Your task to perform on an android device: What's the weather going to be this weekend? Image 0: 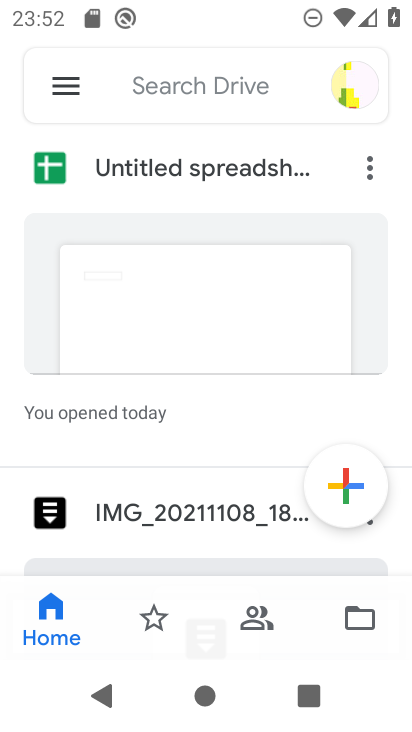
Step 0: press home button
Your task to perform on an android device: What's the weather going to be this weekend? Image 1: 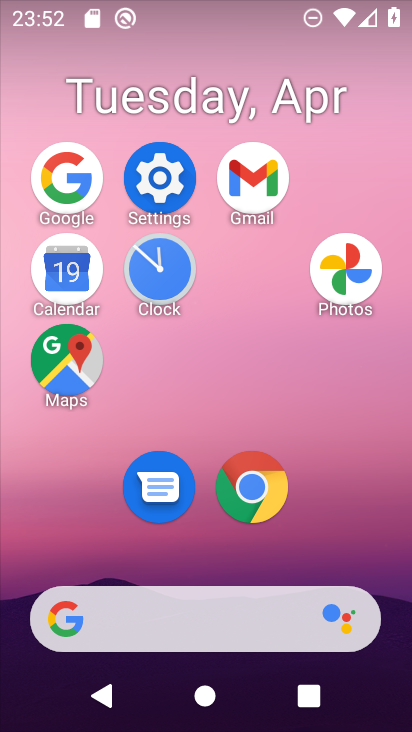
Step 1: click (72, 175)
Your task to perform on an android device: What's the weather going to be this weekend? Image 2: 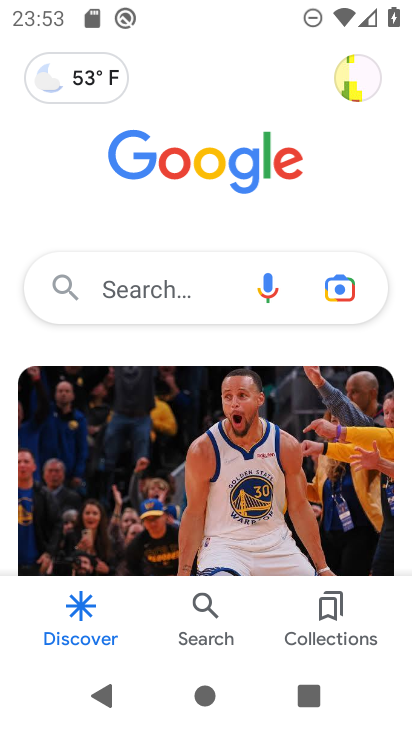
Step 2: click (88, 78)
Your task to perform on an android device: What's the weather going to be this weekend? Image 3: 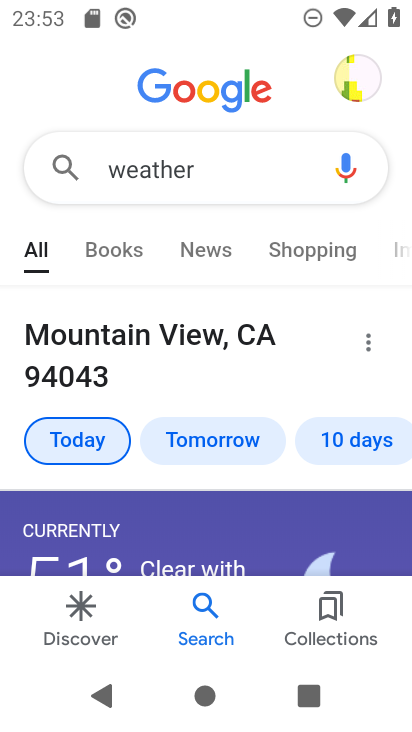
Step 3: click (335, 438)
Your task to perform on an android device: What's the weather going to be this weekend? Image 4: 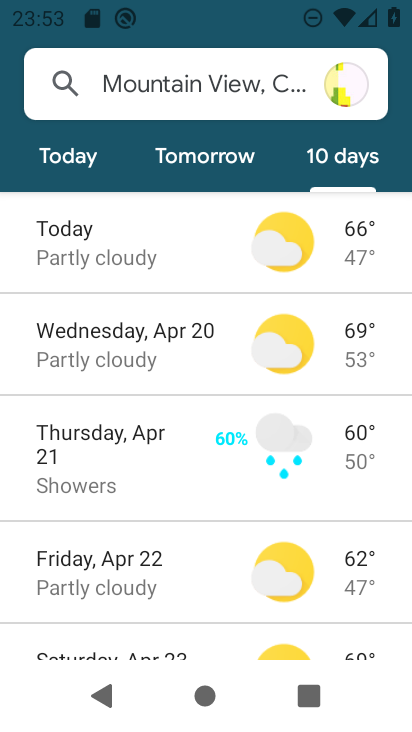
Step 4: drag from (136, 542) to (158, 309)
Your task to perform on an android device: What's the weather going to be this weekend? Image 5: 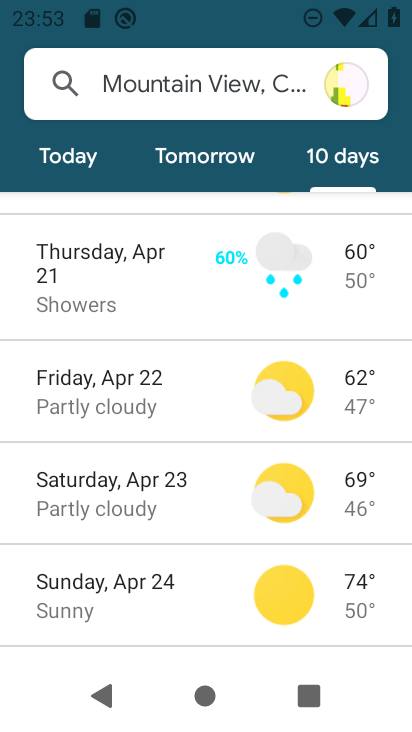
Step 5: click (119, 475)
Your task to perform on an android device: What's the weather going to be this weekend? Image 6: 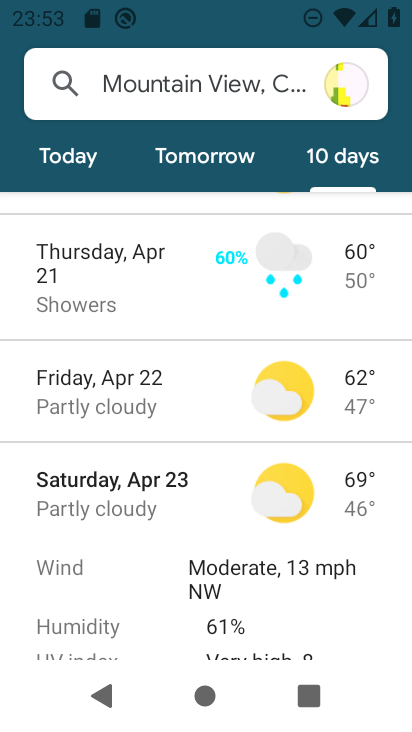
Step 6: task complete